Your task to perform on an android device: delete browsing data in the chrome app Image 0: 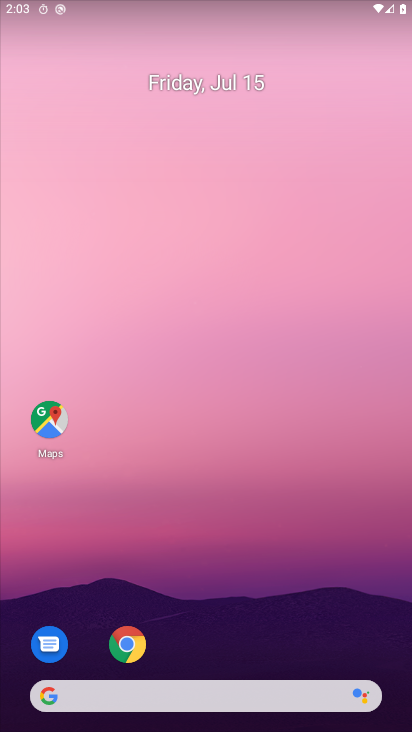
Step 0: click (126, 629)
Your task to perform on an android device: delete browsing data in the chrome app Image 1: 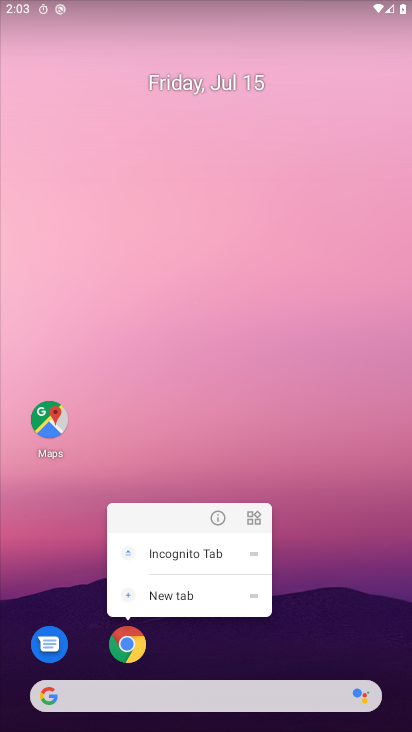
Step 1: click (120, 639)
Your task to perform on an android device: delete browsing data in the chrome app Image 2: 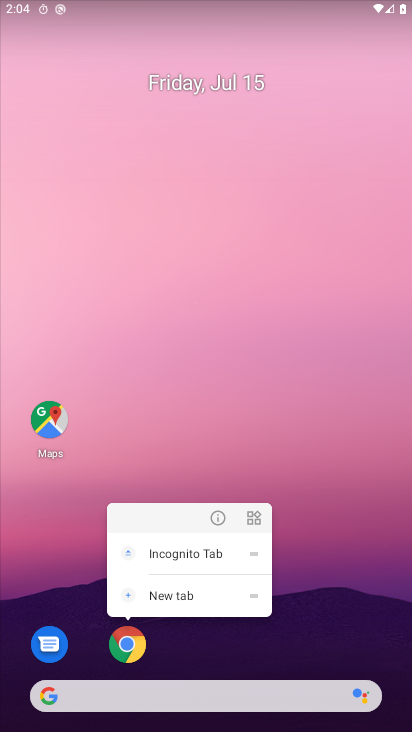
Step 2: click (122, 642)
Your task to perform on an android device: delete browsing data in the chrome app Image 3: 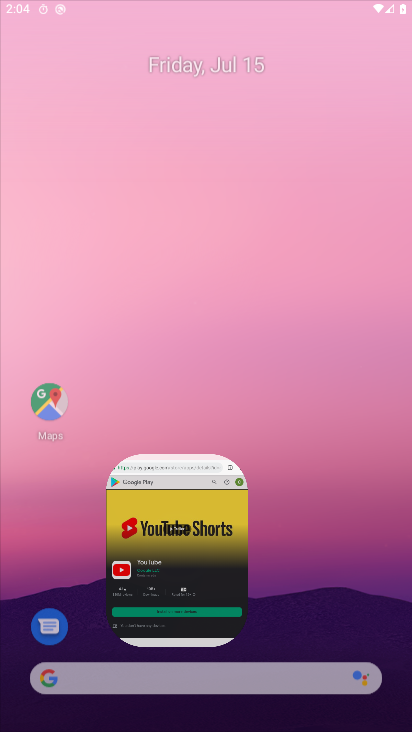
Step 3: click (130, 654)
Your task to perform on an android device: delete browsing data in the chrome app Image 4: 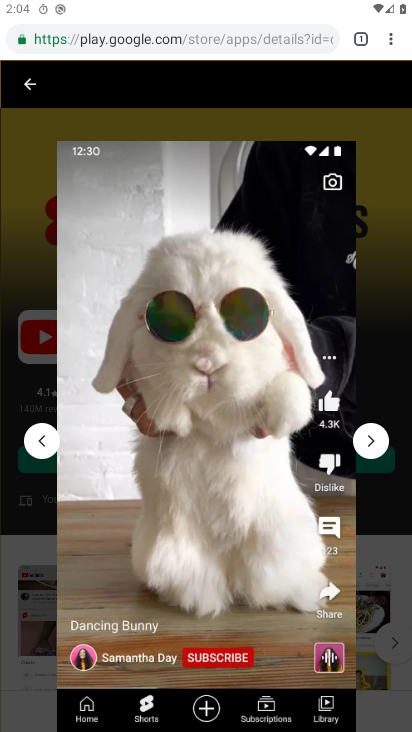
Step 4: click (389, 43)
Your task to perform on an android device: delete browsing data in the chrome app Image 5: 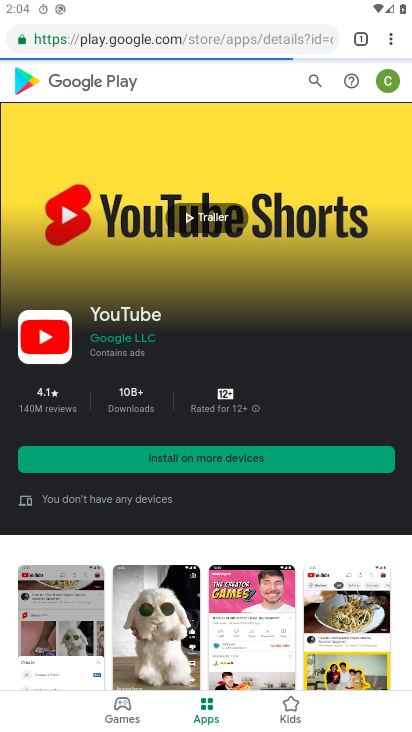
Step 5: click (387, 32)
Your task to perform on an android device: delete browsing data in the chrome app Image 6: 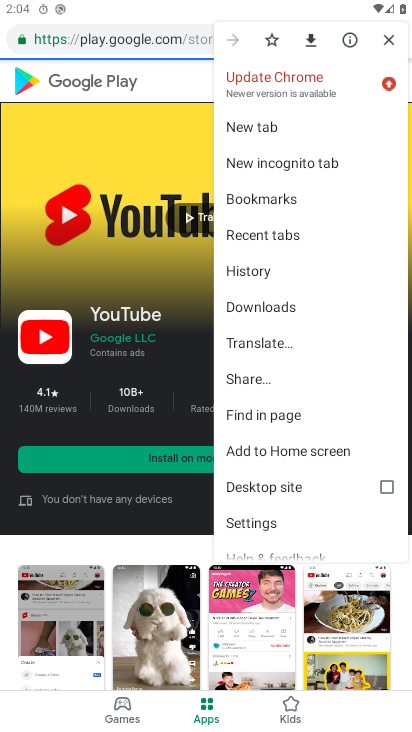
Step 6: click (257, 273)
Your task to perform on an android device: delete browsing data in the chrome app Image 7: 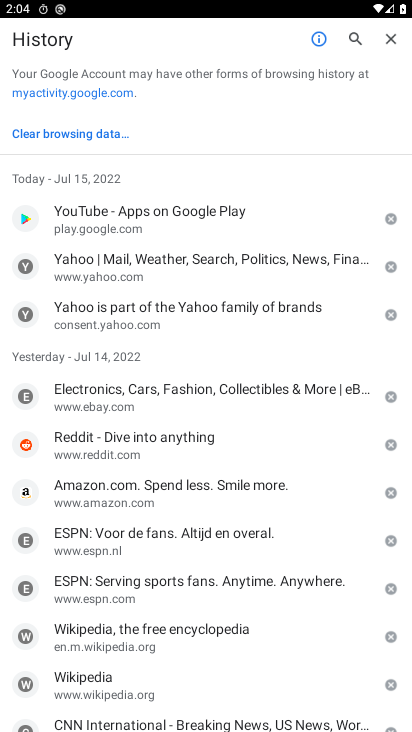
Step 7: click (78, 133)
Your task to perform on an android device: delete browsing data in the chrome app Image 8: 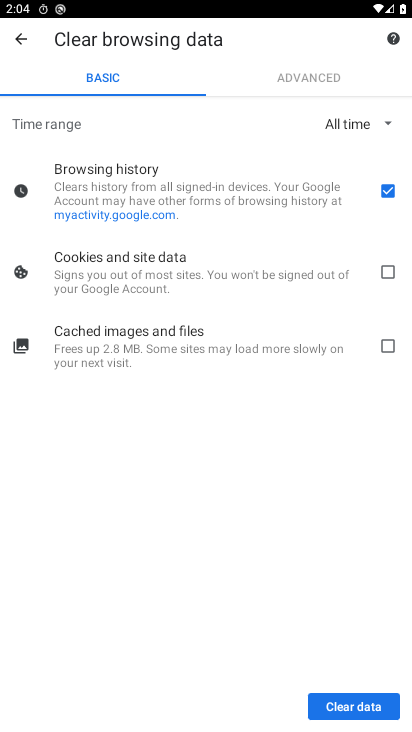
Step 8: click (348, 700)
Your task to perform on an android device: delete browsing data in the chrome app Image 9: 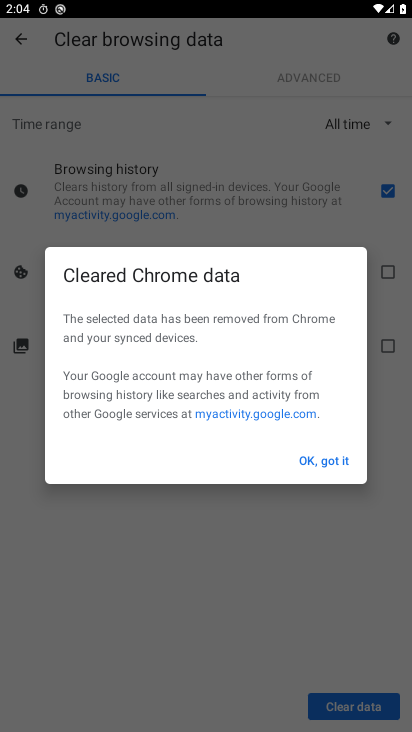
Step 9: click (330, 459)
Your task to perform on an android device: delete browsing data in the chrome app Image 10: 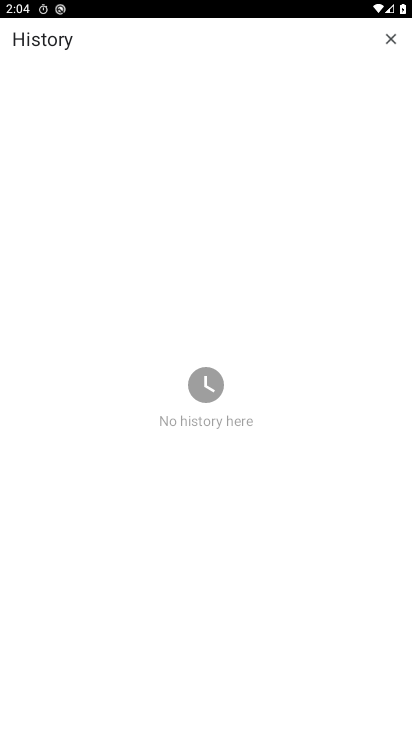
Step 10: task complete